Your task to perform on an android device: What's the weather? Image 0: 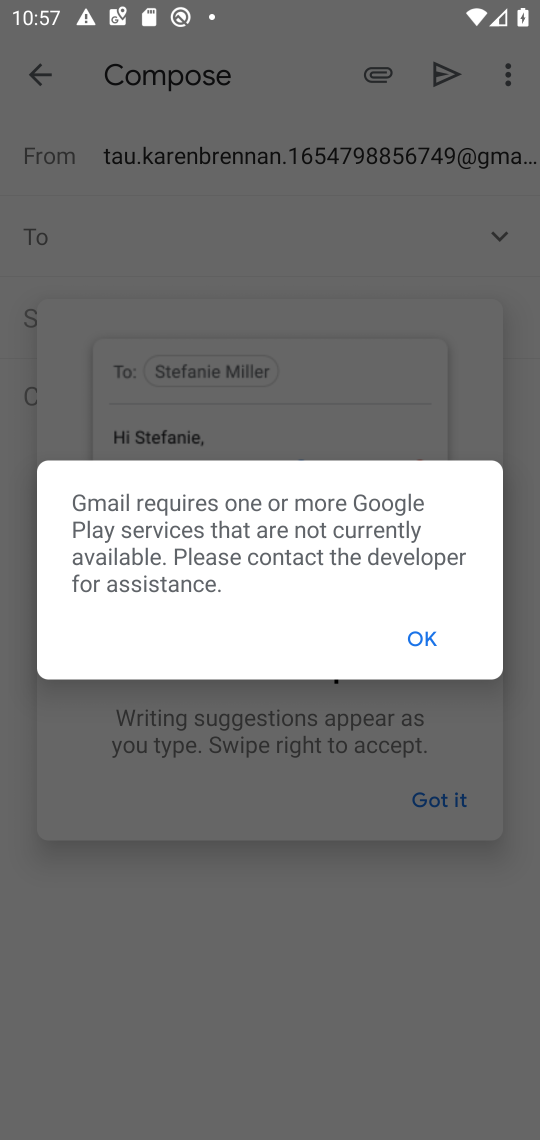
Step 0: press home button
Your task to perform on an android device: What's the weather? Image 1: 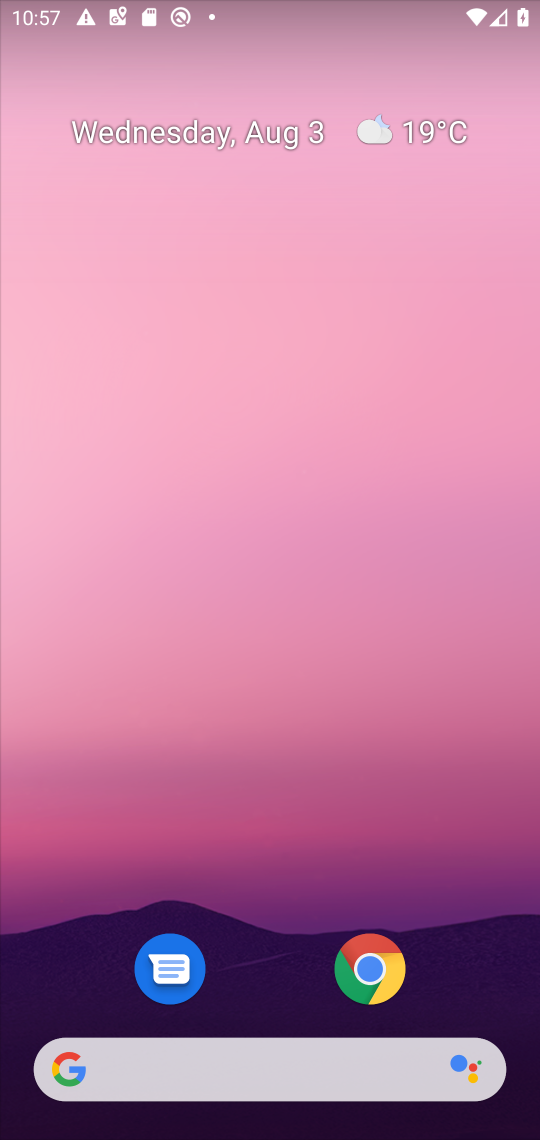
Step 1: click (257, 1031)
Your task to perform on an android device: What's the weather? Image 2: 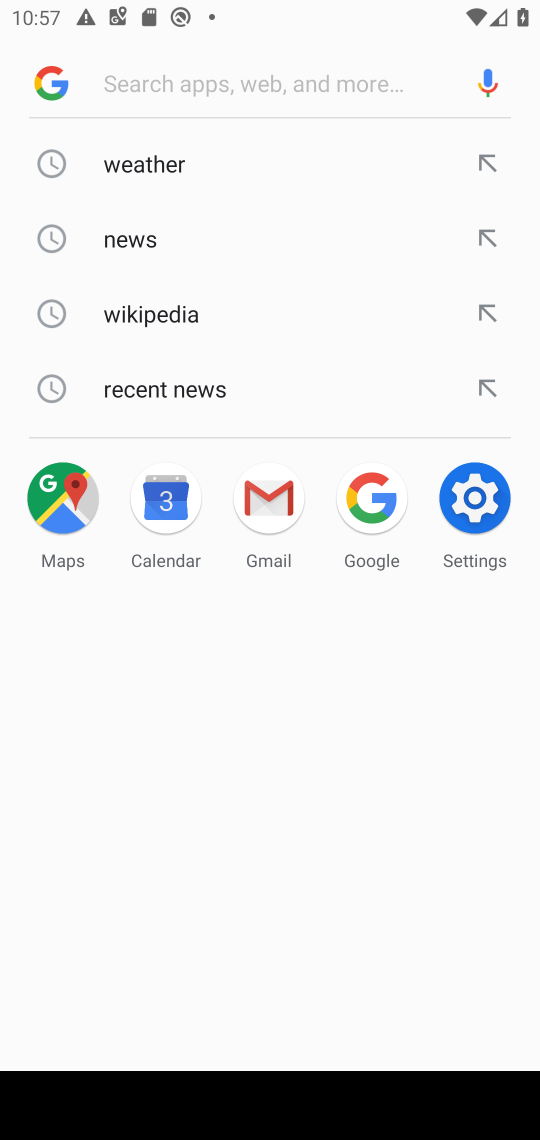
Step 2: click (124, 173)
Your task to perform on an android device: What's the weather? Image 3: 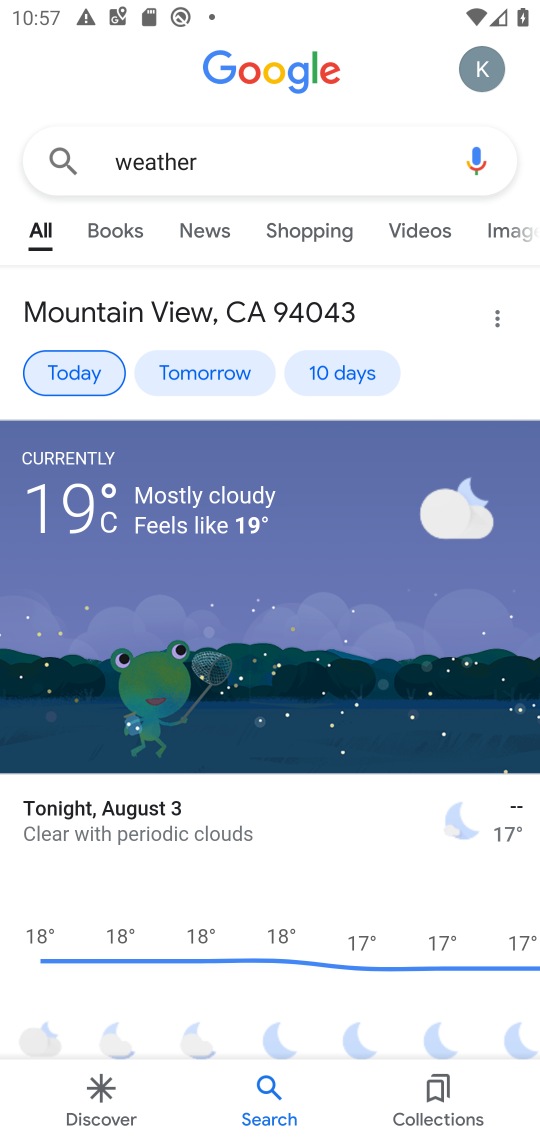
Step 3: task complete